Your task to perform on an android device: toggle airplane mode Image 0: 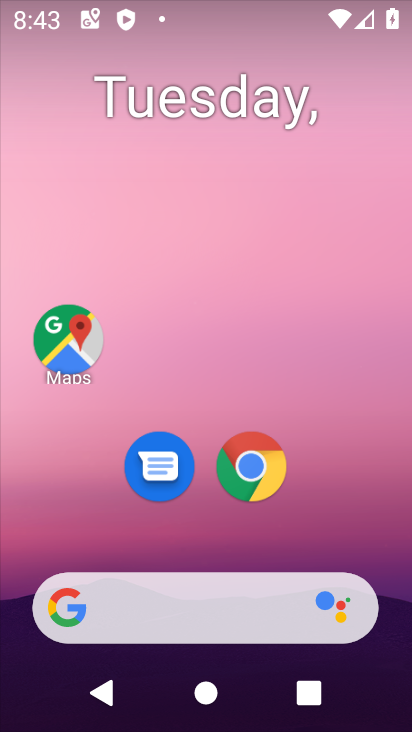
Step 0: drag from (214, 526) to (242, 0)
Your task to perform on an android device: toggle airplane mode Image 1: 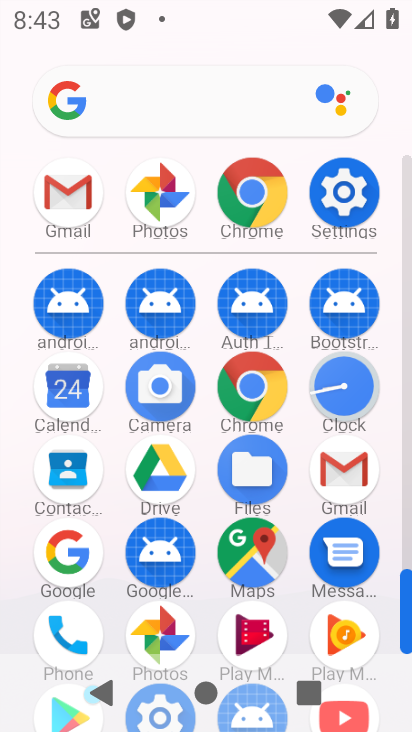
Step 1: click (343, 207)
Your task to perform on an android device: toggle airplane mode Image 2: 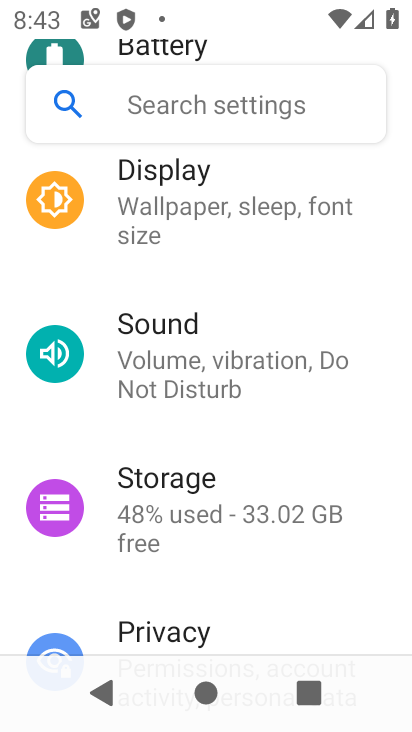
Step 2: drag from (290, 266) to (241, 564)
Your task to perform on an android device: toggle airplane mode Image 3: 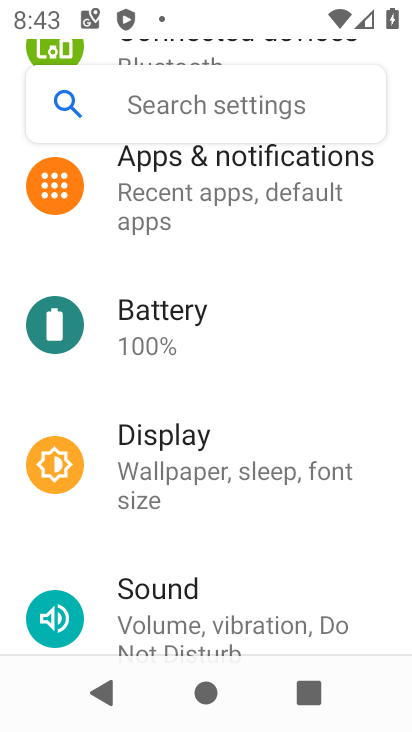
Step 3: drag from (239, 280) to (198, 545)
Your task to perform on an android device: toggle airplane mode Image 4: 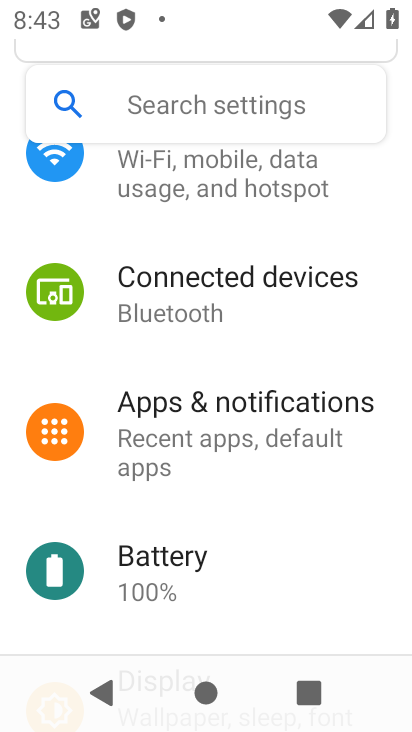
Step 4: drag from (221, 259) to (205, 559)
Your task to perform on an android device: toggle airplane mode Image 5: 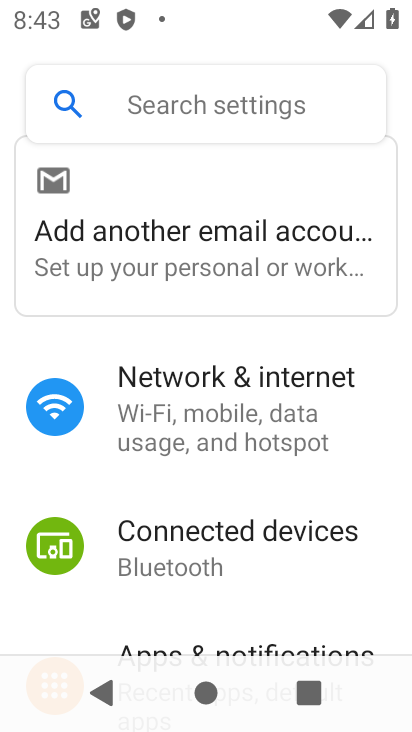
Step 5: click (205, 425)
Your task to perform on an android device: toggle airplane mode Image 6: 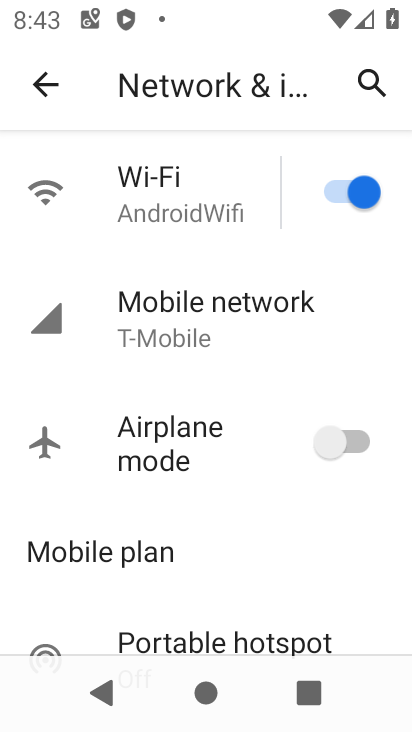
Step 6: click (362, 444)
Your task to perform on an android device: toggle airplane mode Image 7: 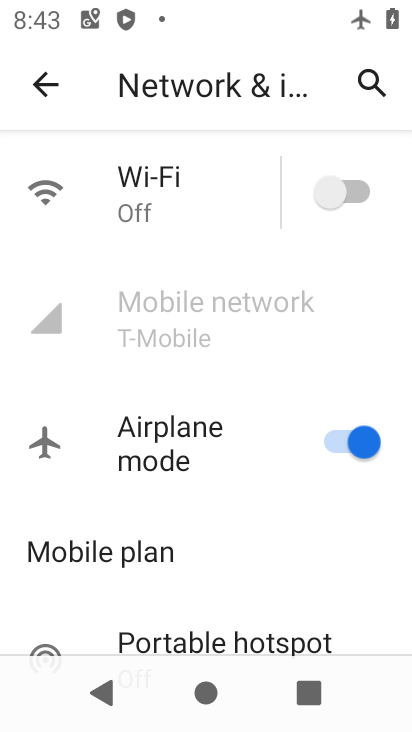
Step 7: task complete